Your task to perform on an android device: Go to privacy settings Image 0: 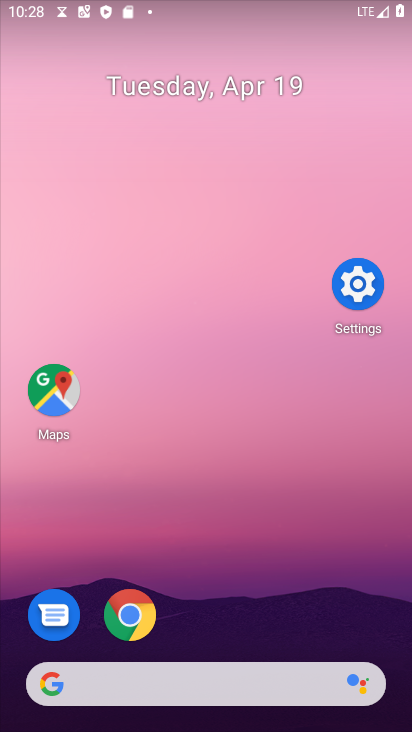
Step 0: drag from (182, 645) to (209, 74)
Your task to perform on an android device: Go to privacy settings Image 1: 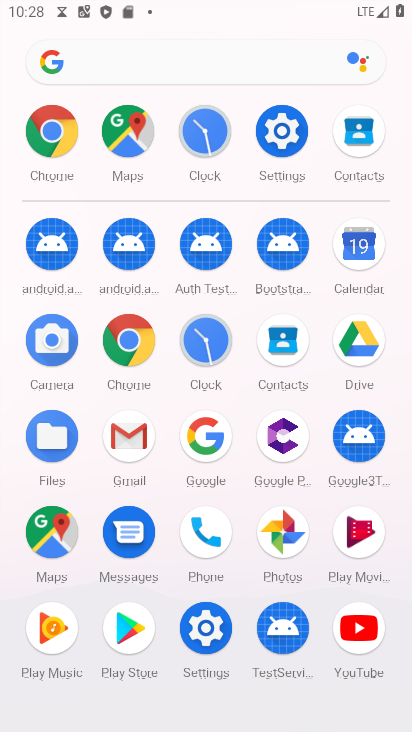
Step 1: drag from (249, 615) to (250, 210)
Your task to perform on an android device: Go to privacy settings Image 2: 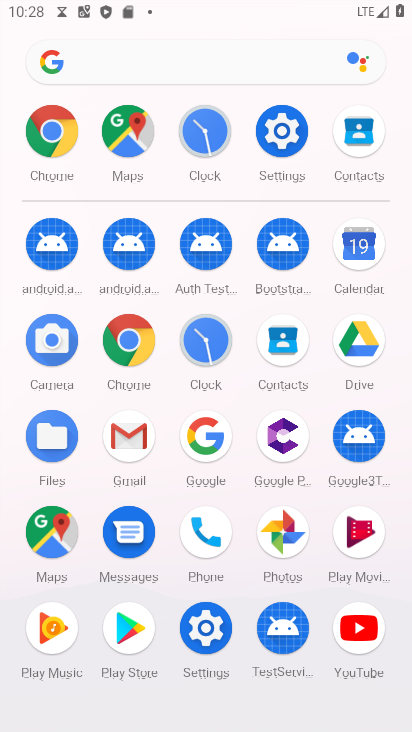
Step 2: click (197, 640)
Your task to perform on an android device: Go to privacy settings Image 3: 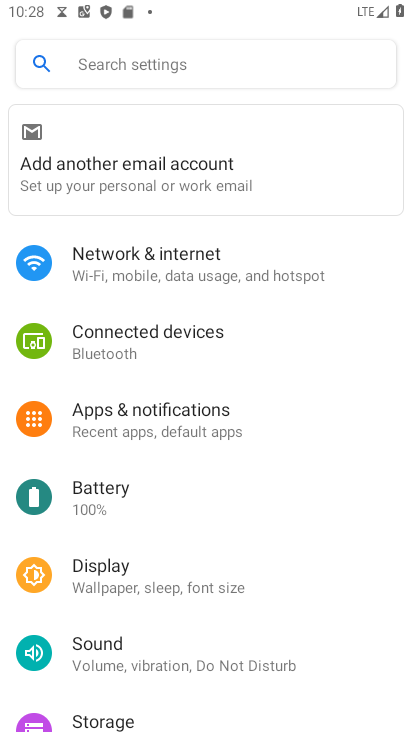
Step 3: drag from (209, 595) to (224, 395)
Your task to perform on an android device: Go to privacy settings Image 4: 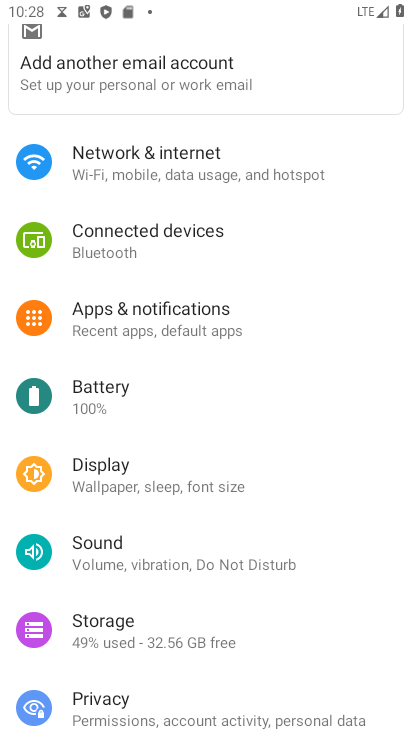
Step 4: drag from (168, 676) to (245, 248)
Your task to perform on an android device: Go to privacy settings Image 5: 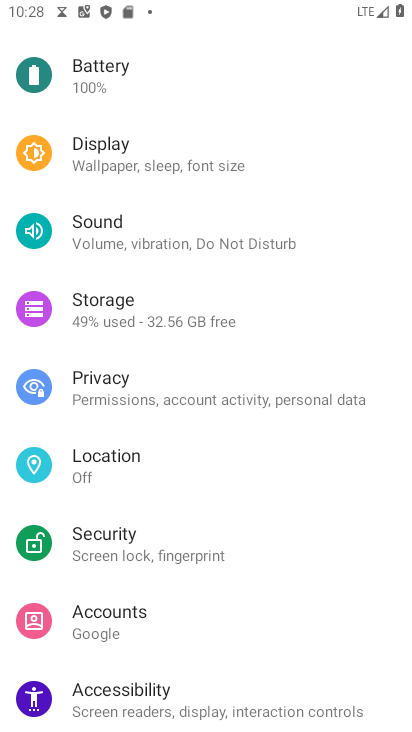
Step 5: click (154, 394)
Your task to perform on an android device: Go to privacy settings Image 6: 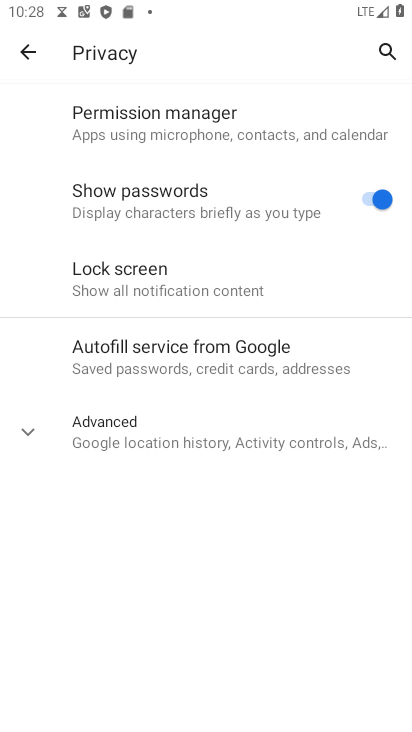
Step 6: task complete